Your task to perform on an android device: Search for pizza restaurants on Maps Image 0: 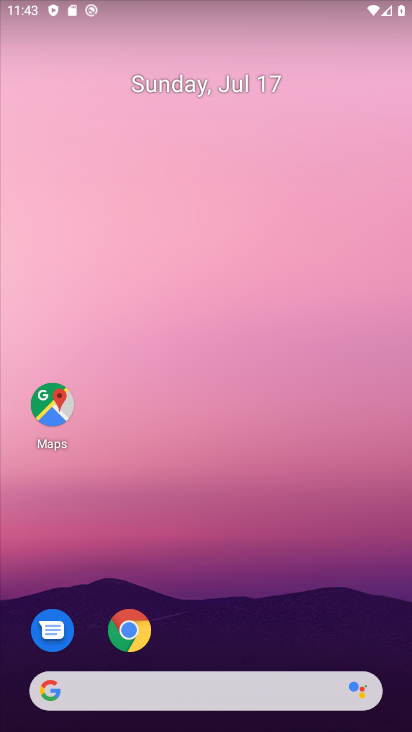
Step 0: click (37, 412)
Your task to perform on an android device: Search for pizza restaurants on Maps Image 1: 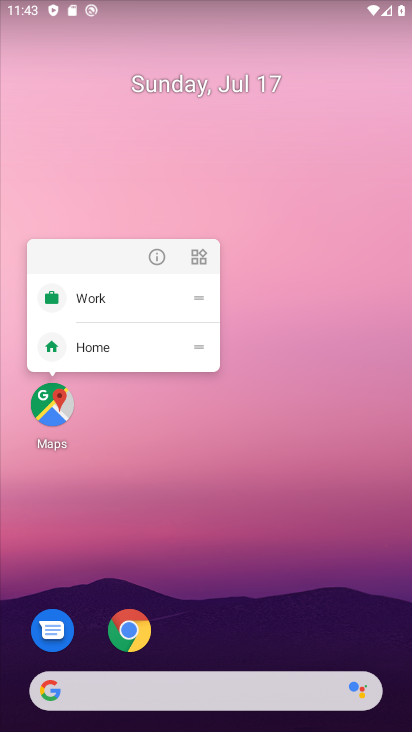
Step 1: click (41, 416)
Your task to perform on an android device: Search for pizza restaurants on Maps Image 2: 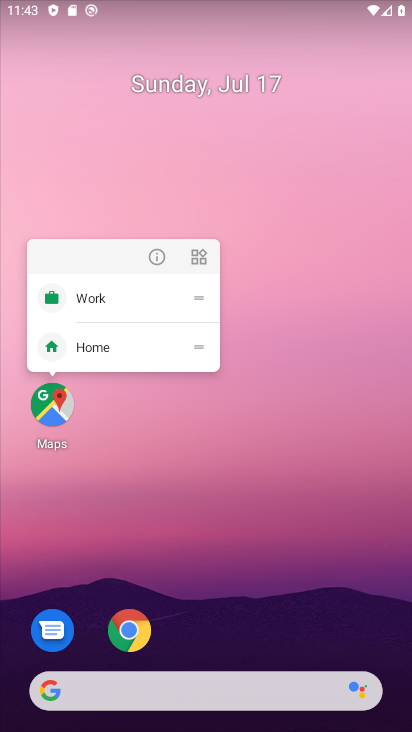
Step 2: click (53, 410)
Your task to perform on an android device: Search for pizza restaurants on Maps Image 3: 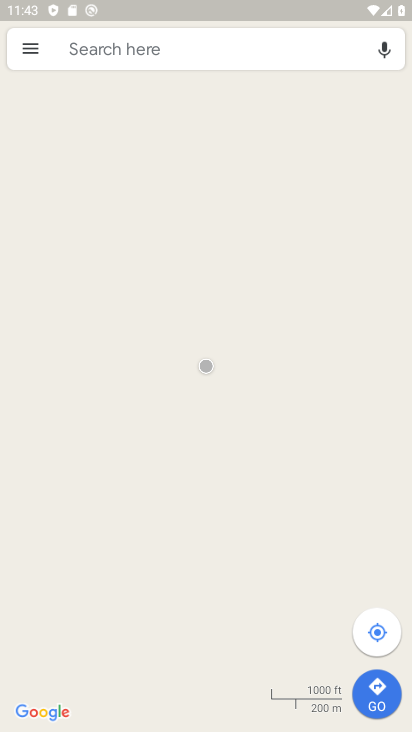
Step 3: click (125, 48)
Your task to perform on an android device: Search for pizza restaurants on Maps Image 4: 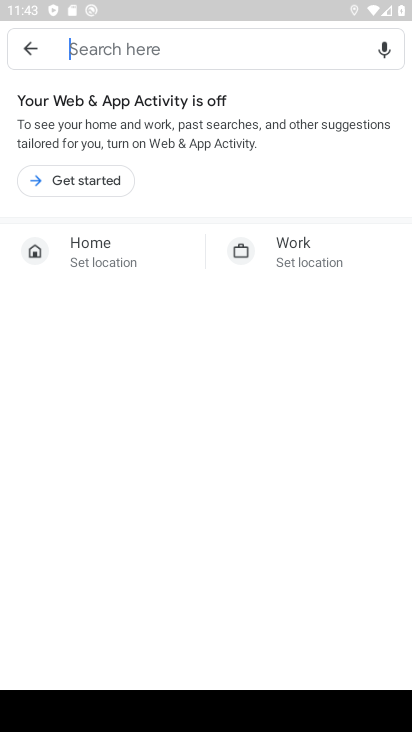
Step 4: click (135, 44)
Your task to perform on an android device: Search for pizza restaurants on Maps Image 5: 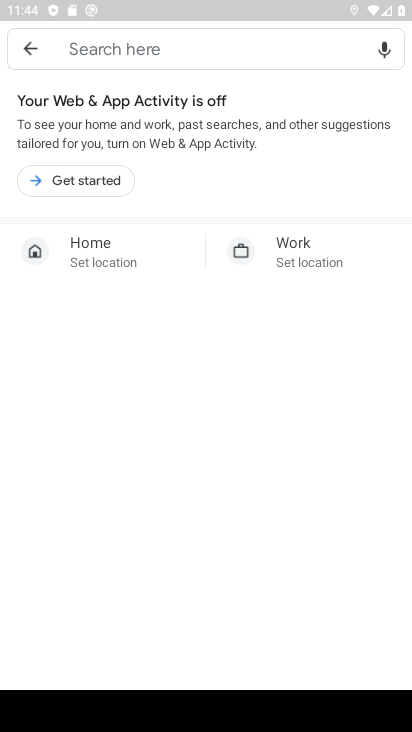
Step 5: type "pizza restaurants "
Your task to perform on an android device: Search for pizza restaurants on Maps Image 6: 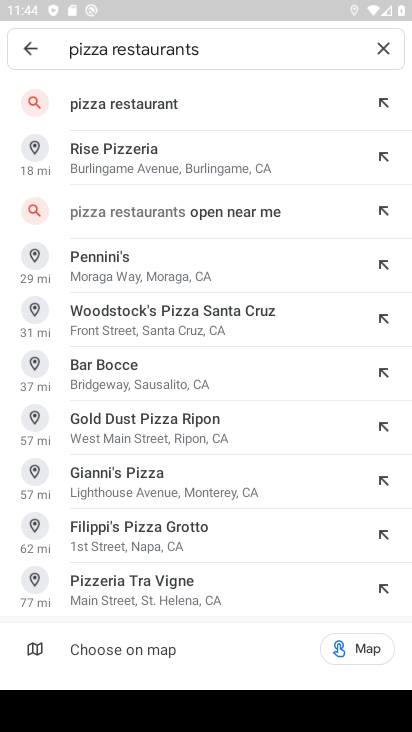
Step 6: click (138, 104)
Your task to perform on an android device: Search for pizza restaurants on Maps Image 7: 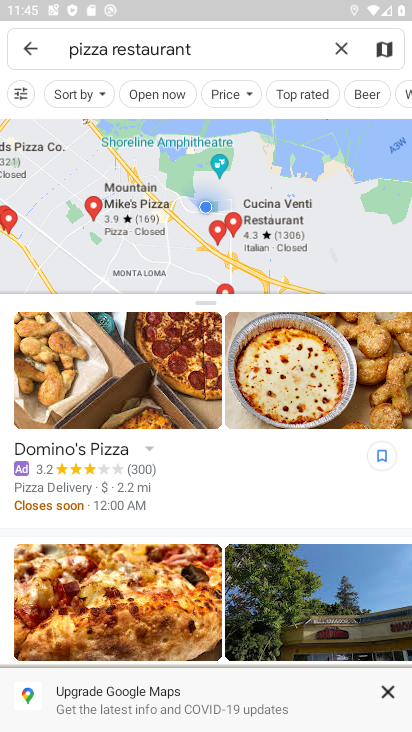
Step 7: task complete